Your task to perform on an android device: Open the Play Movies app and select the watchlist tab. Image 0: 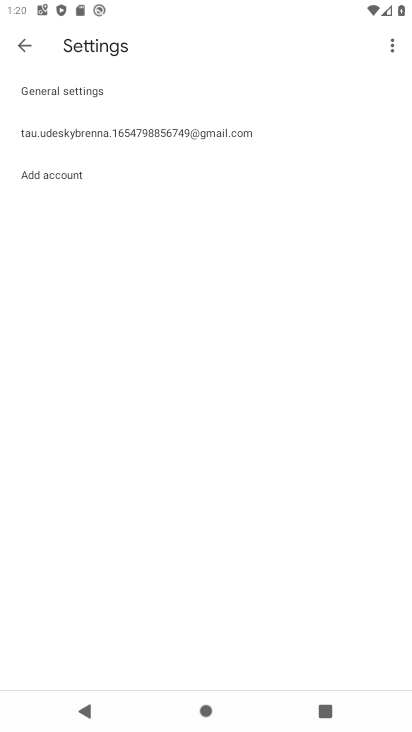
Step 0: press home button
Your task to perform on an android device: Open the Play Movies app and select the watchlist tab. Image 1: 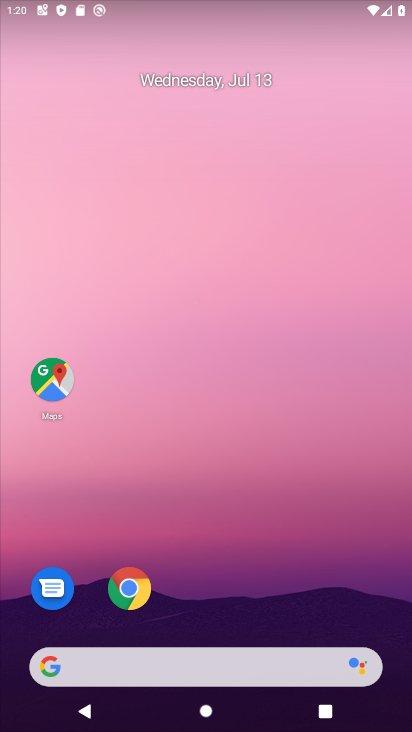
Step 1: drag from (227, 637) to (232, 210)
Your task to perform on an android device: Open the Play Movies app and select the watchlist tab. Image 2: 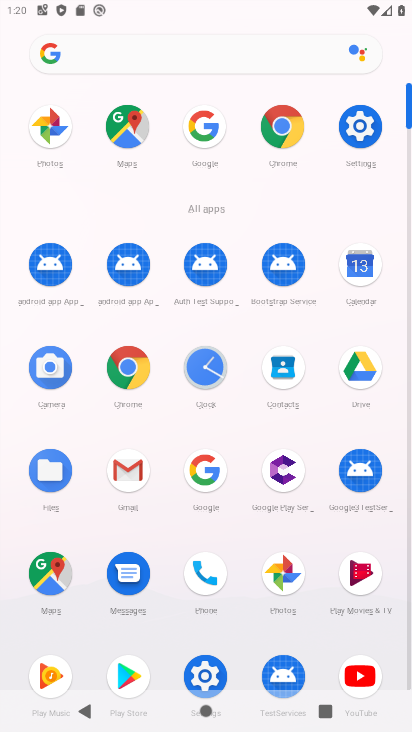
Step 2: click (358, 588)
Your task to perform on an android device: Open the Play Movies app and select the watchlist tab. Image 3: 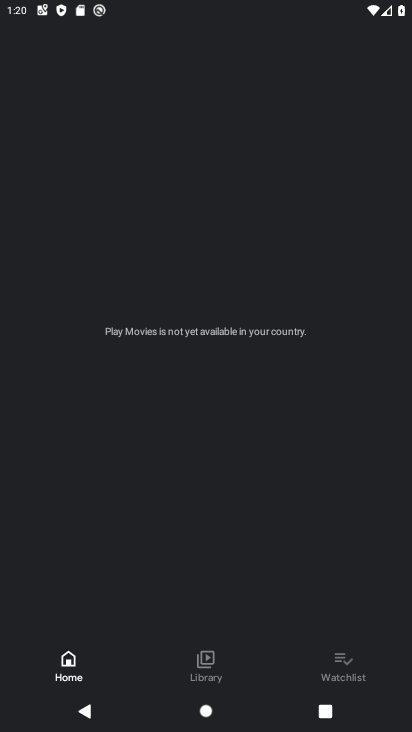
Step 3: task complete